Your task to perform on an android device: Go to internet settings Image 0: 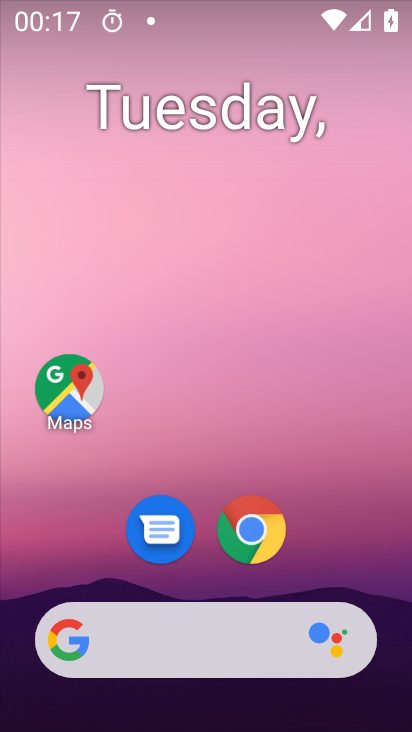
Step 0: press home button
Your task to perform on an android device: Go to internet settings Image 1: 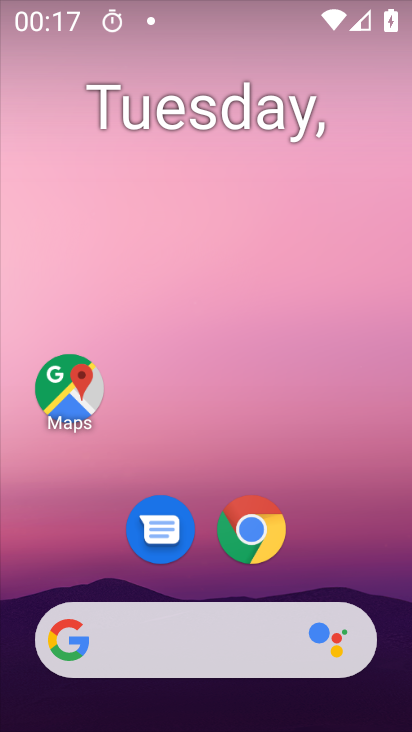
Step 1: drag from (353, 531) to (326, 100)
Your task to perform on an android device: Go to internet settings Image 2: 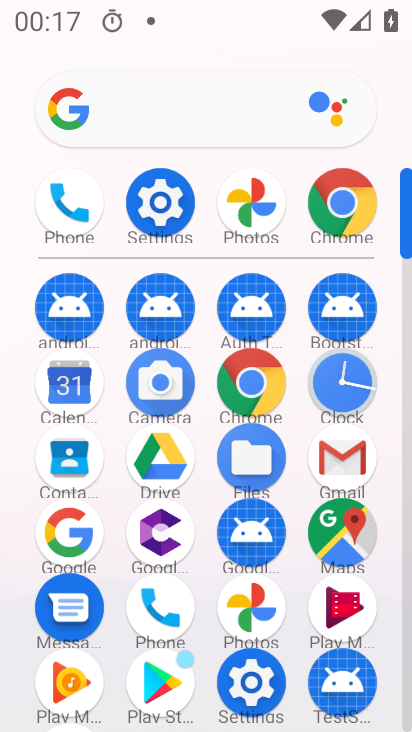
Step 2: click (174, 203)
Your task to perform on an android device: Go to internet settings Image 3: 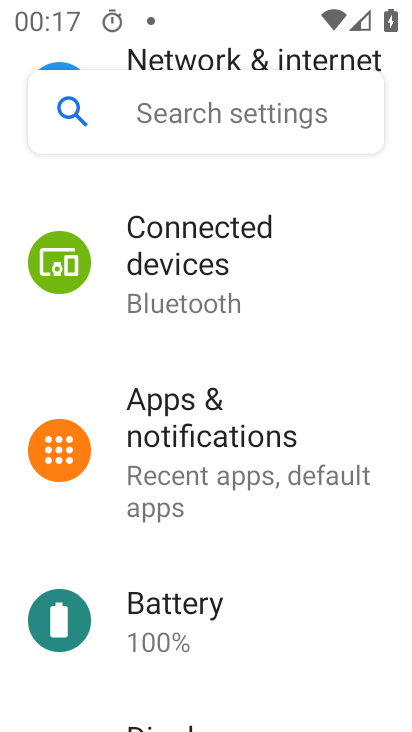
Step 3: drag from (289, 241) to (329, 500)
Your task to perform on an android device: Go to internet settings Image 4: 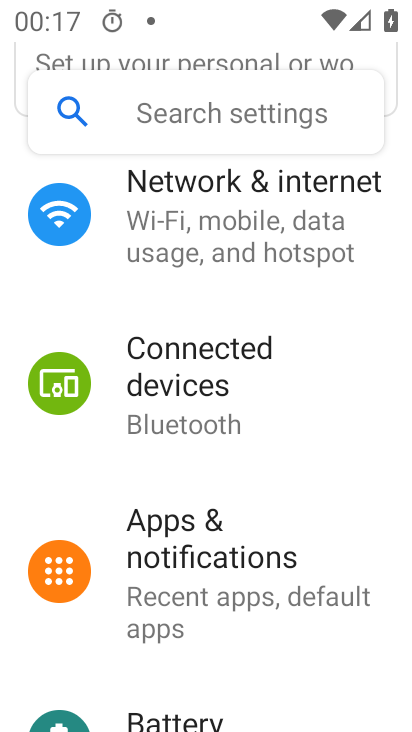
Step 4: click (248, 245)
Your task to perform on an android device: Go to internet settings Image 5: 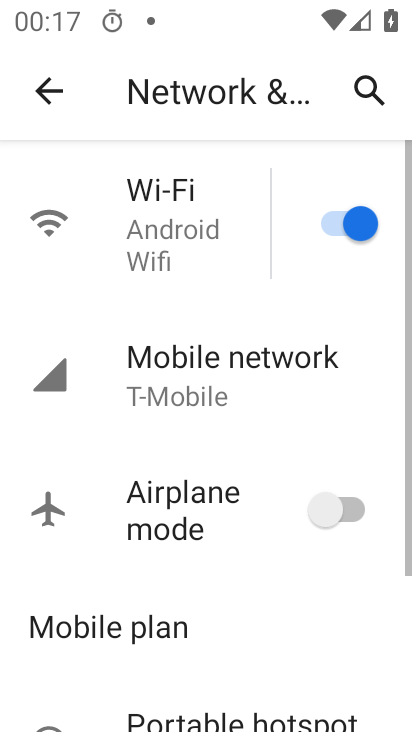
Step 5: task complete